Your task to perform on an android device: see tabs open on other devices in the chrome app Image 0: 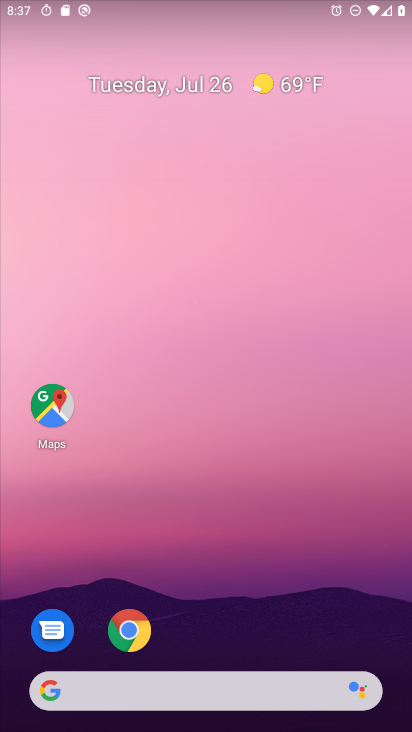
Step 0: drag from (245, 628) to (212, 199)
Your task to perform on an android device: see tabs open on other devices in the chrome app Image 1: 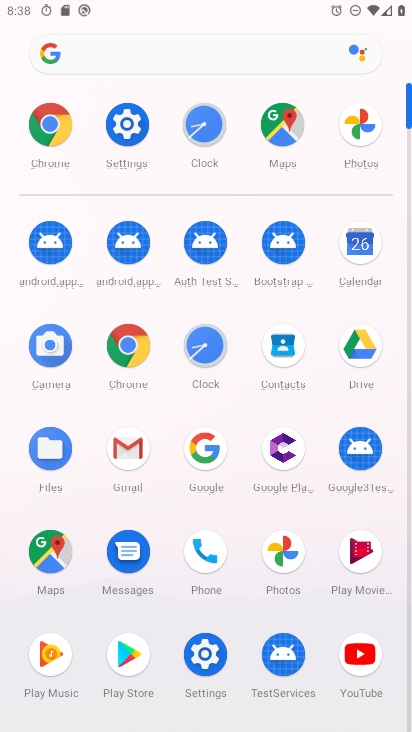
Step 1: click (132, 356)
Your task to perform on an android device: see tabs open on other devices in the chrome app Image 2: 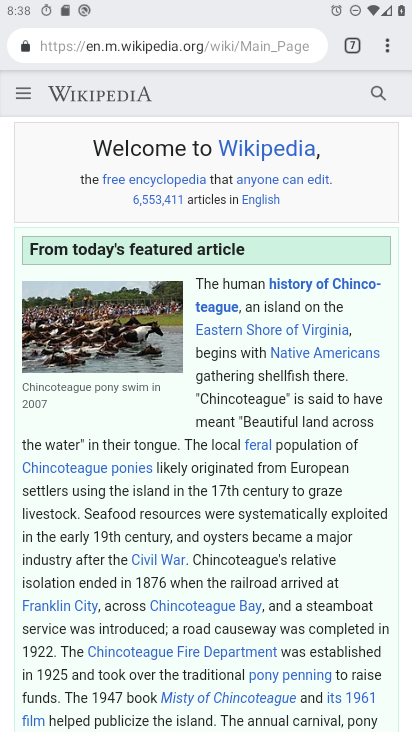
Step 2: click (385, 45)
Your task to perform on an android device: see tabs open on other devices in the chrome app Image 3: 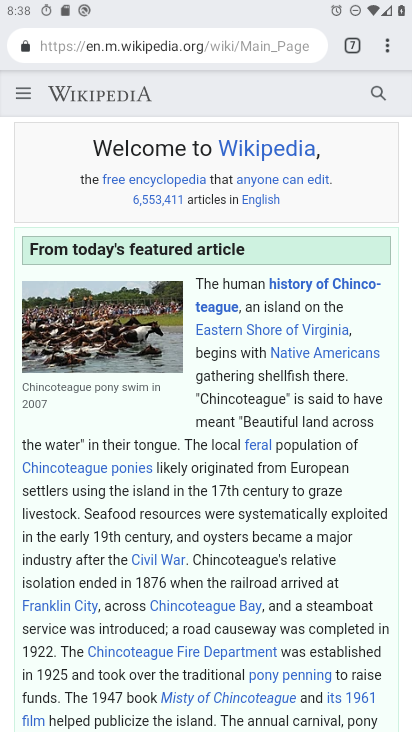
Step 3: click (381, 46)
Your task to perform on an android device: see tabs open on other devices in the chrome app Image 4: 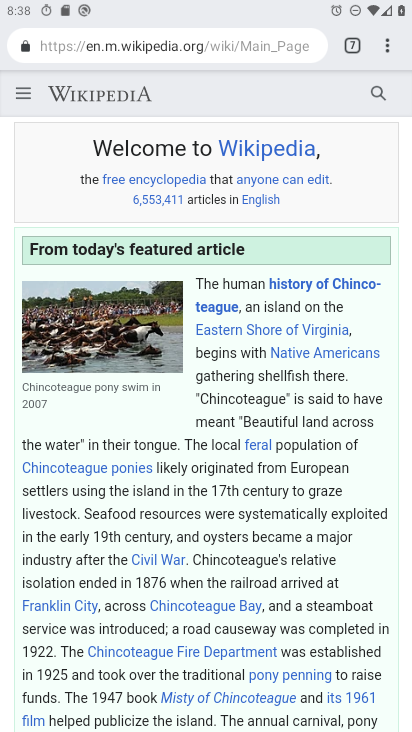
Step 4: click (388, 41)
Your task to perform on an android device: see tabs open on other devices in the chrome app Image 5: 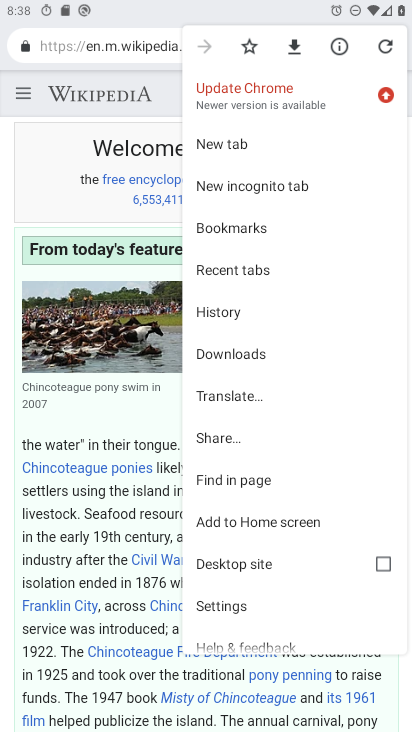
Step 5: click (264, 264)
Your task to perform on an android device: see tabs open on other devices in the chrome app Image 6: 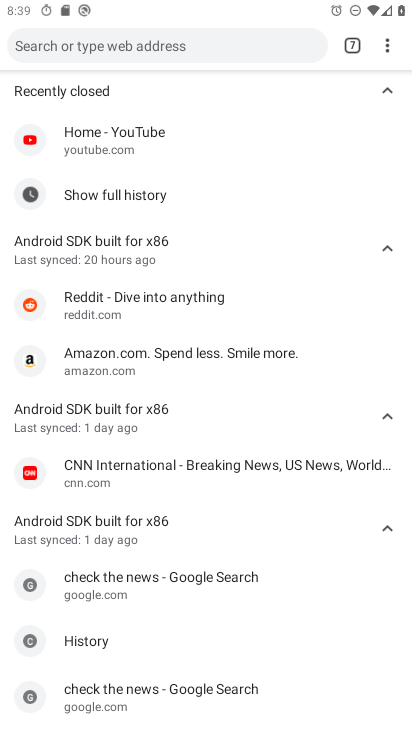
Step 6: task complete